Your task to perform on an android device: Clear the cart on target.com. Add "macbook pro 15 inch" to the cart on target.com Image 0: 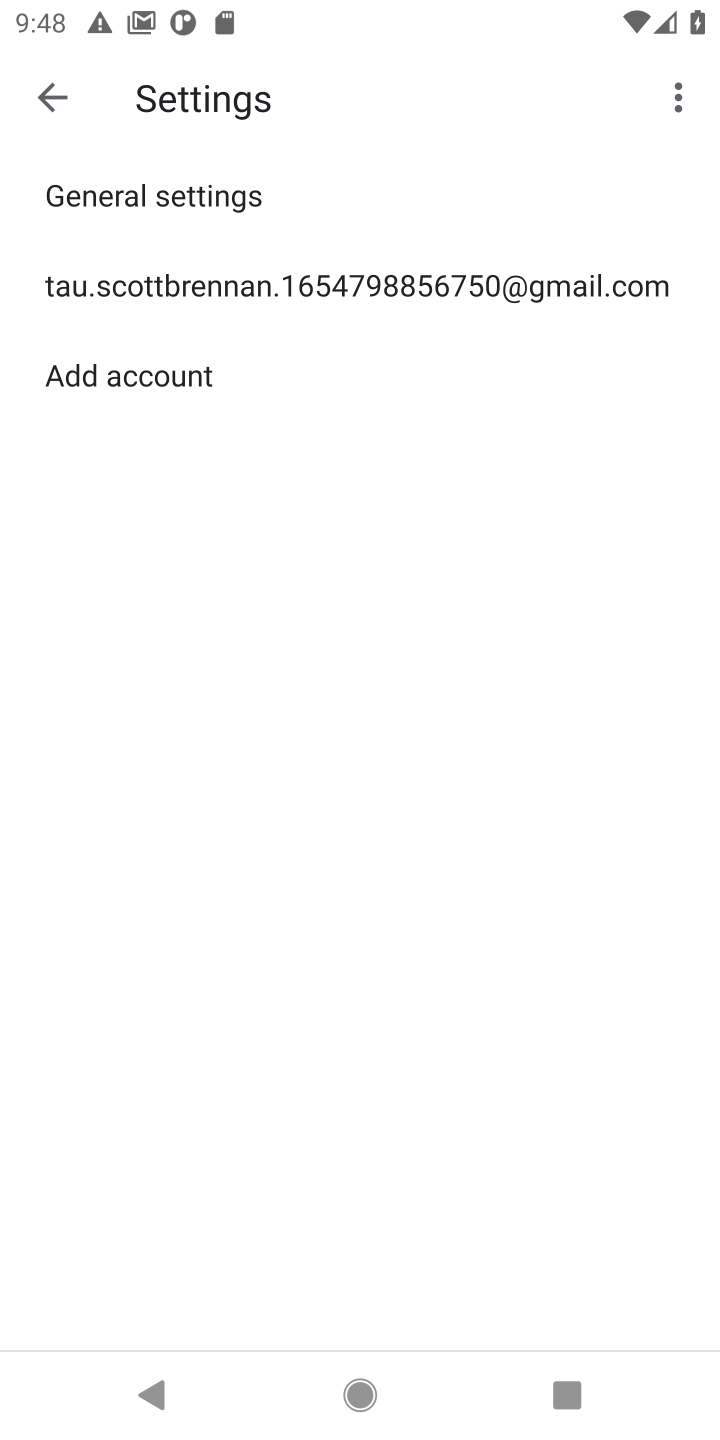
Step 0: press home button
Your task to perform on an android device: Clear the cart on target.com. Add "macbook pro 15 inch" to the cart on target.com Image 1: 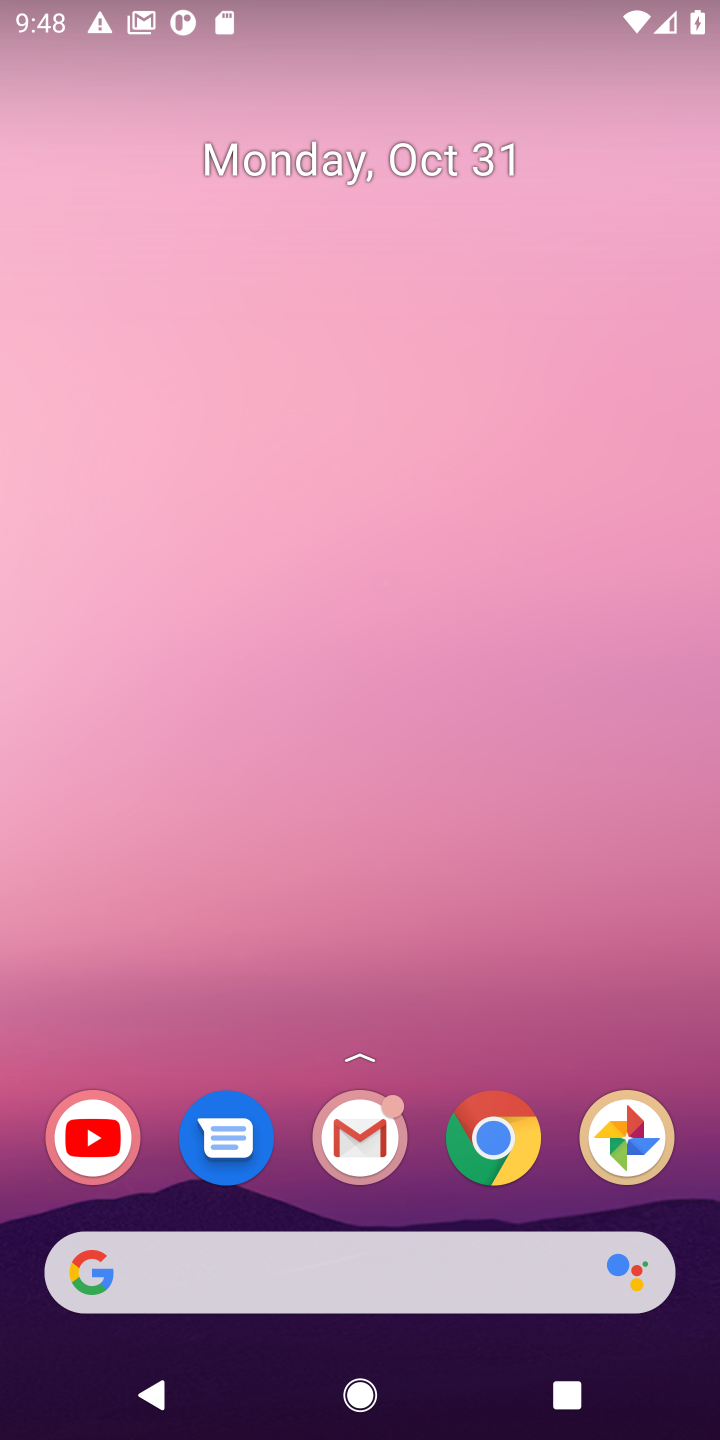
Step 1: drag from (442, 1336) to (469, 283)
Your task to perform on an android device: Clear the cart on target.com. Add "macbook pro 15 inch" to the cart on target.com Image 2: 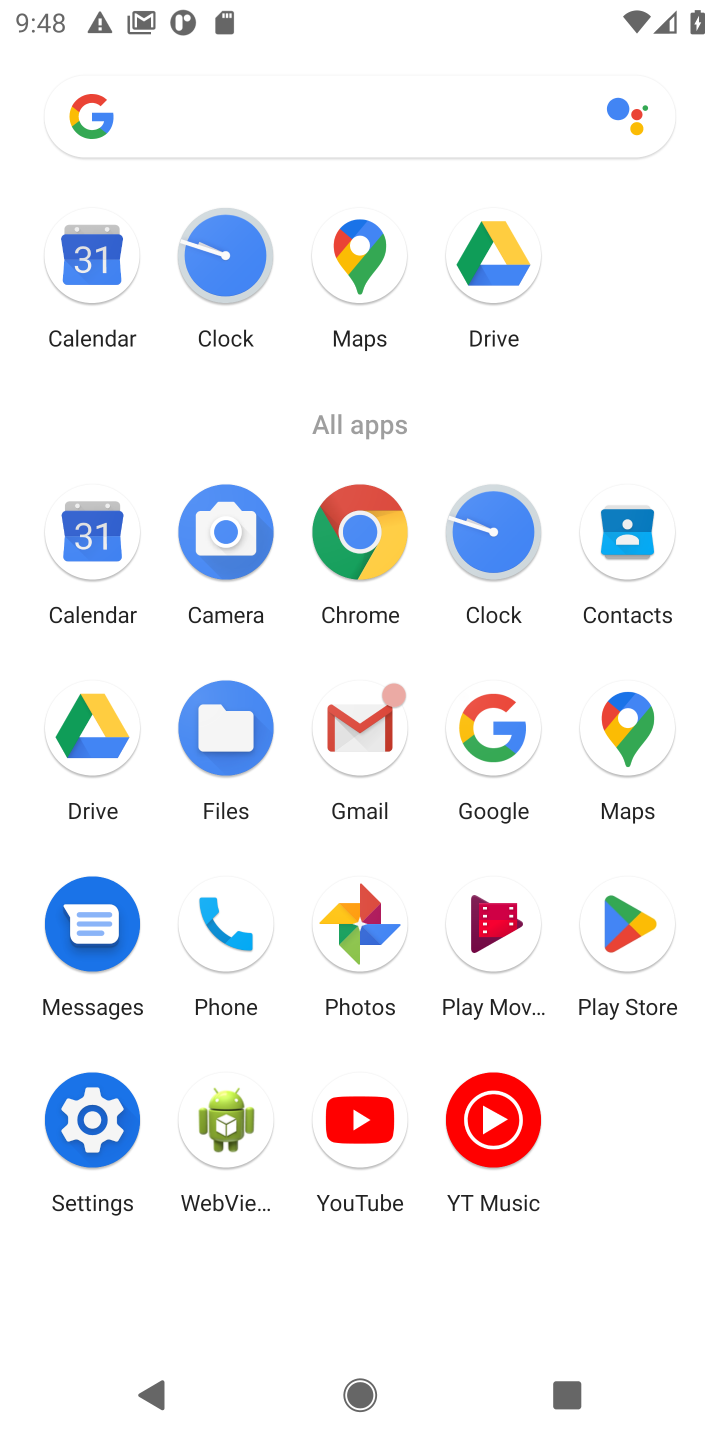
Step 2: click (363, 538)
Your task to perform on an android device: Clear the cart on target.com. Add "macbook pro 15 inch" to the cart on target.com Image 3: 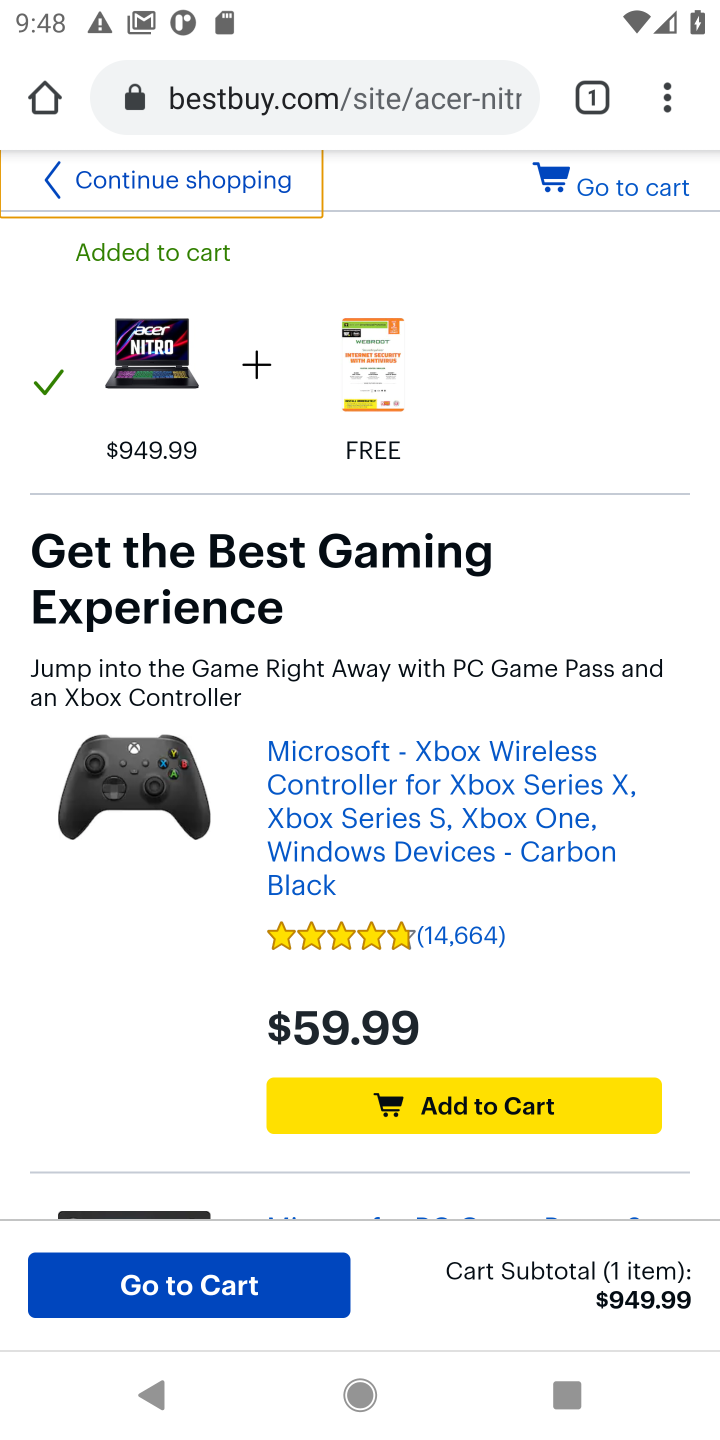
Step 3: click (379, 117)
Your task to perform on an android device: Clear the cart on target.com. Add "macbook pro 15 inch" to the cart on target.com Image 4: 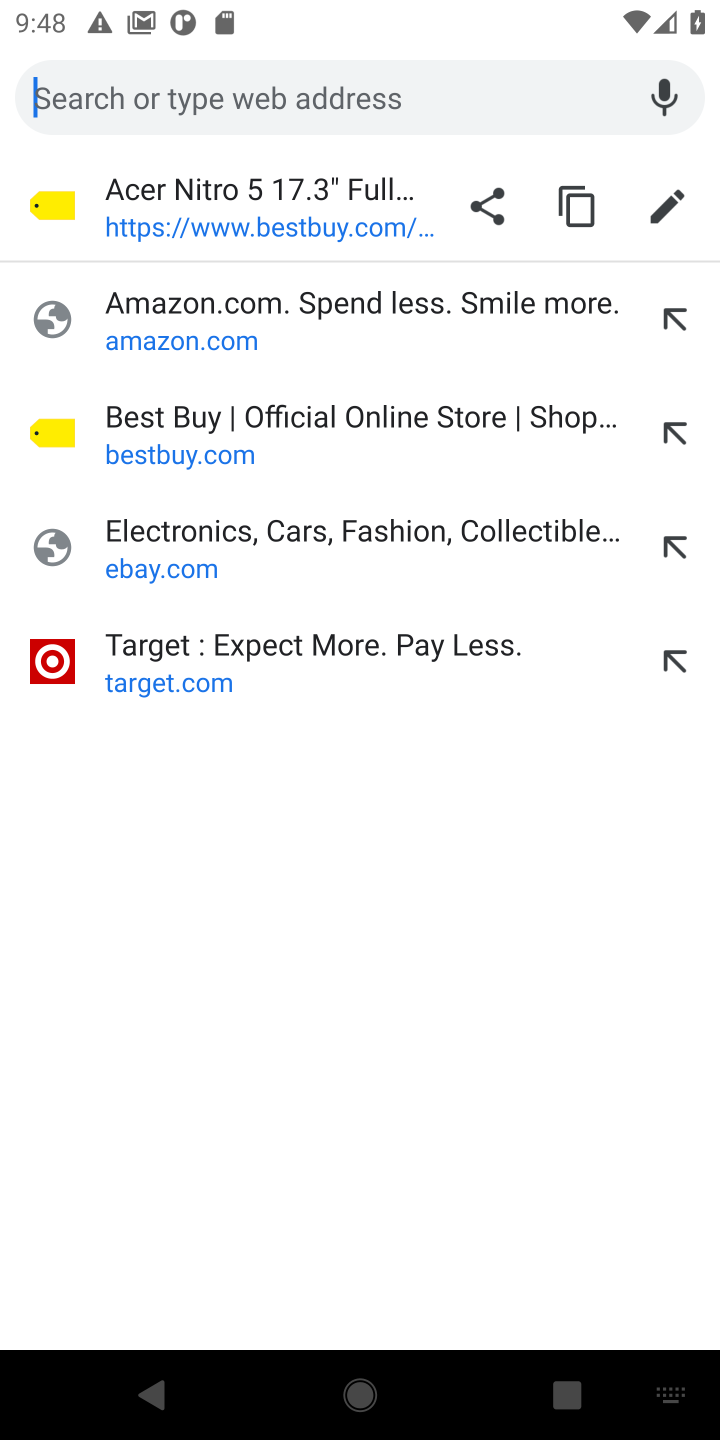
Step 4: type " target.com"
Your task to perform on an android device: Clear the cart on target.com. Add "macbook pro 15 inch" to the cart on target.com Image 5: 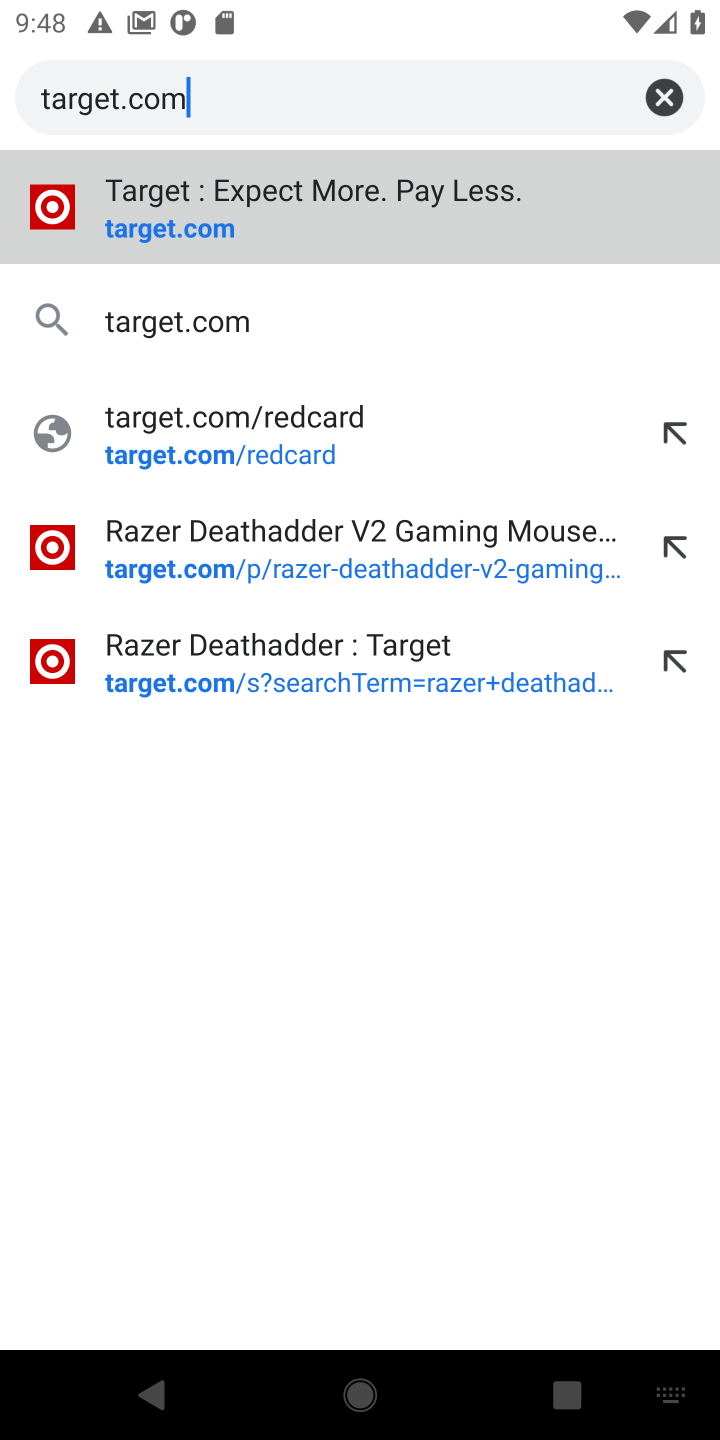
Step 5: click (150, 234)
Your task to perform on an android device: Clear the cart on target.com. Add "macbook pro 15 inch" to the cart on target.com Image 6: 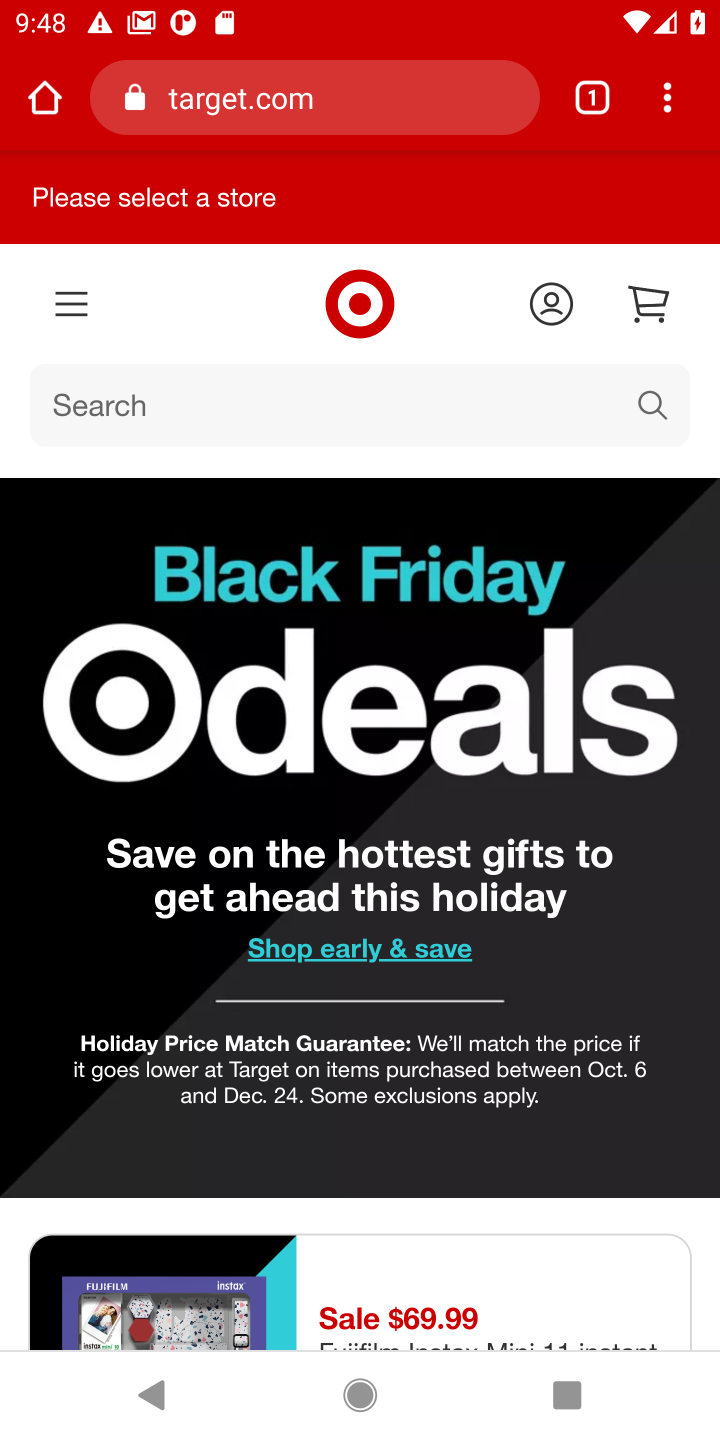
Step 6: click (340, 104)
Your task to perform on an android device: Clear the cart on target.com. Add "macbook pro 15 inch" to the cart on target.com Image 7: 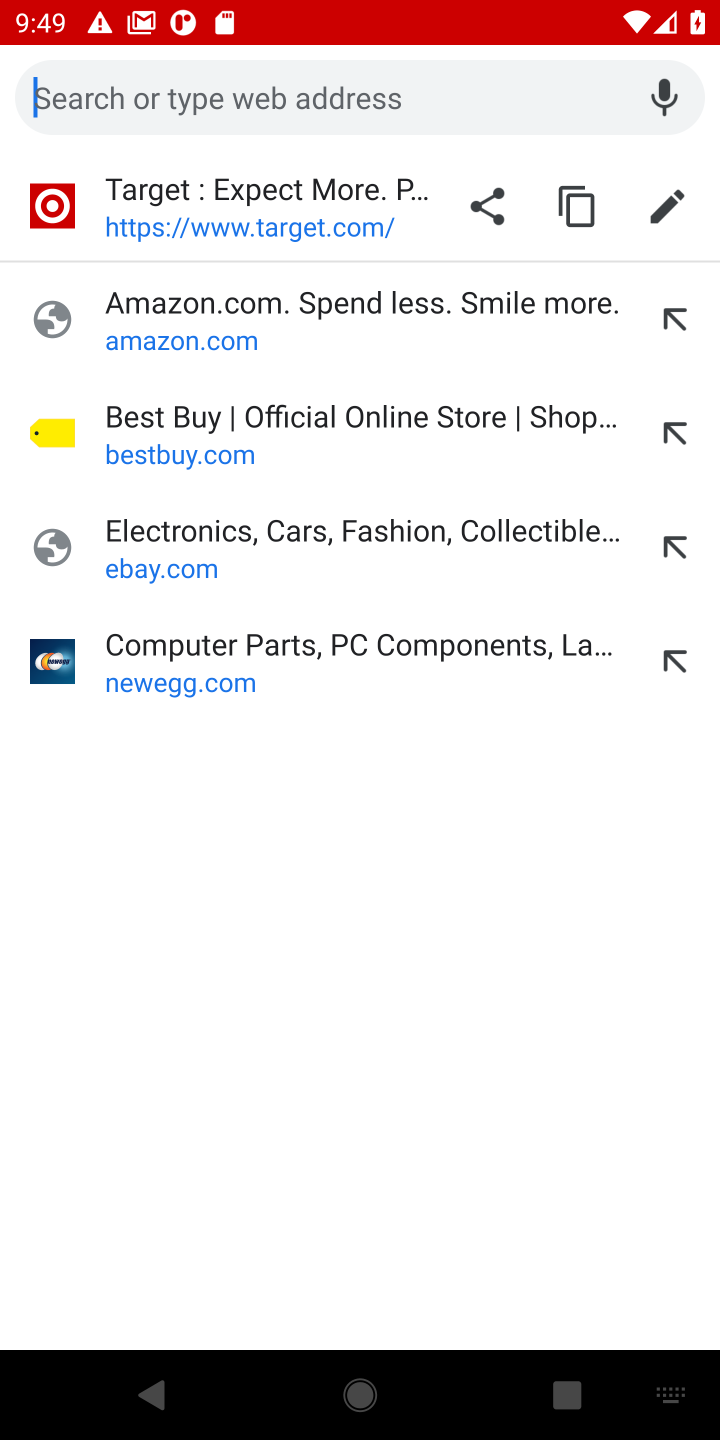
Step 7: type " target.com"
Your task to perform on an android device: Clear the cart on target.com. Add "macbook pro 15 inch" to the cart on target.com Image 8: 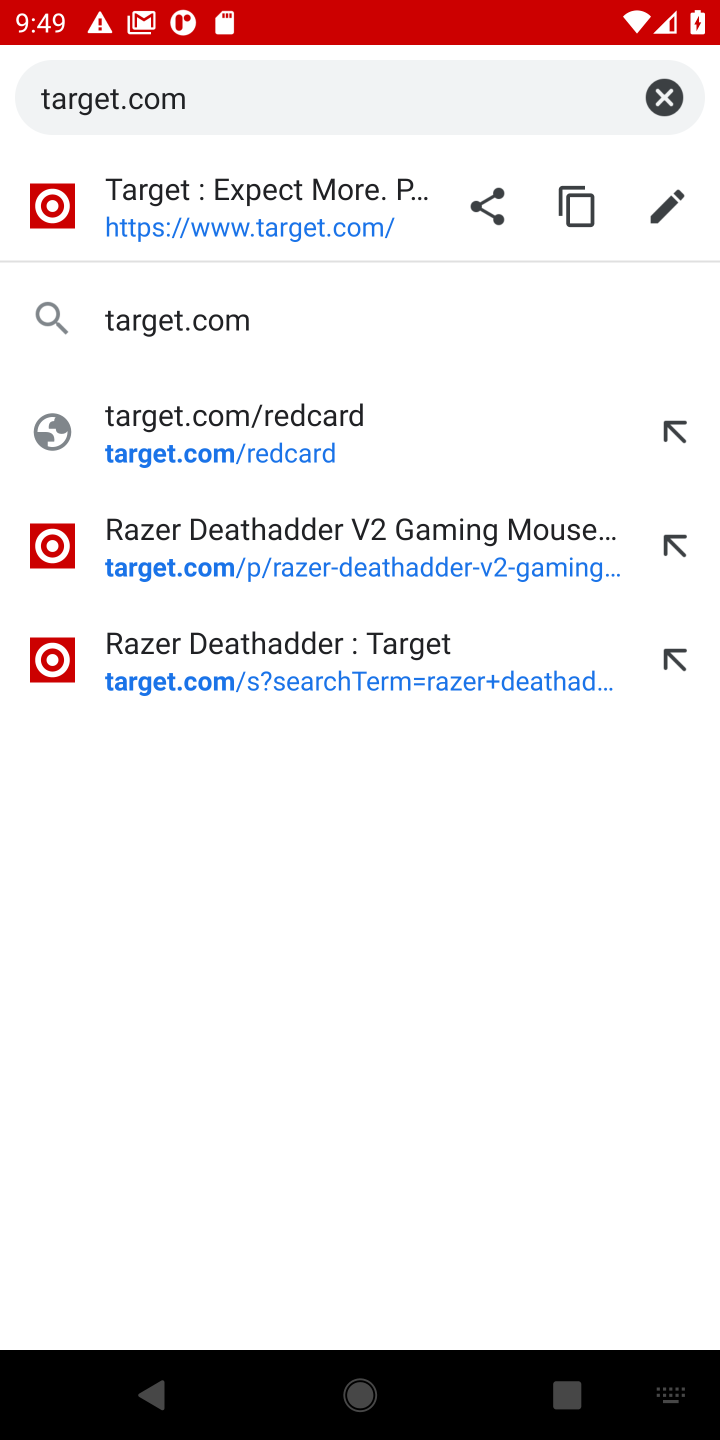
Step 8: click (661, 93)
Your task to perform on an android device: Clear the cart on target.com. Add "macbook pro 15 inch" to the cart on target.com Image 9: 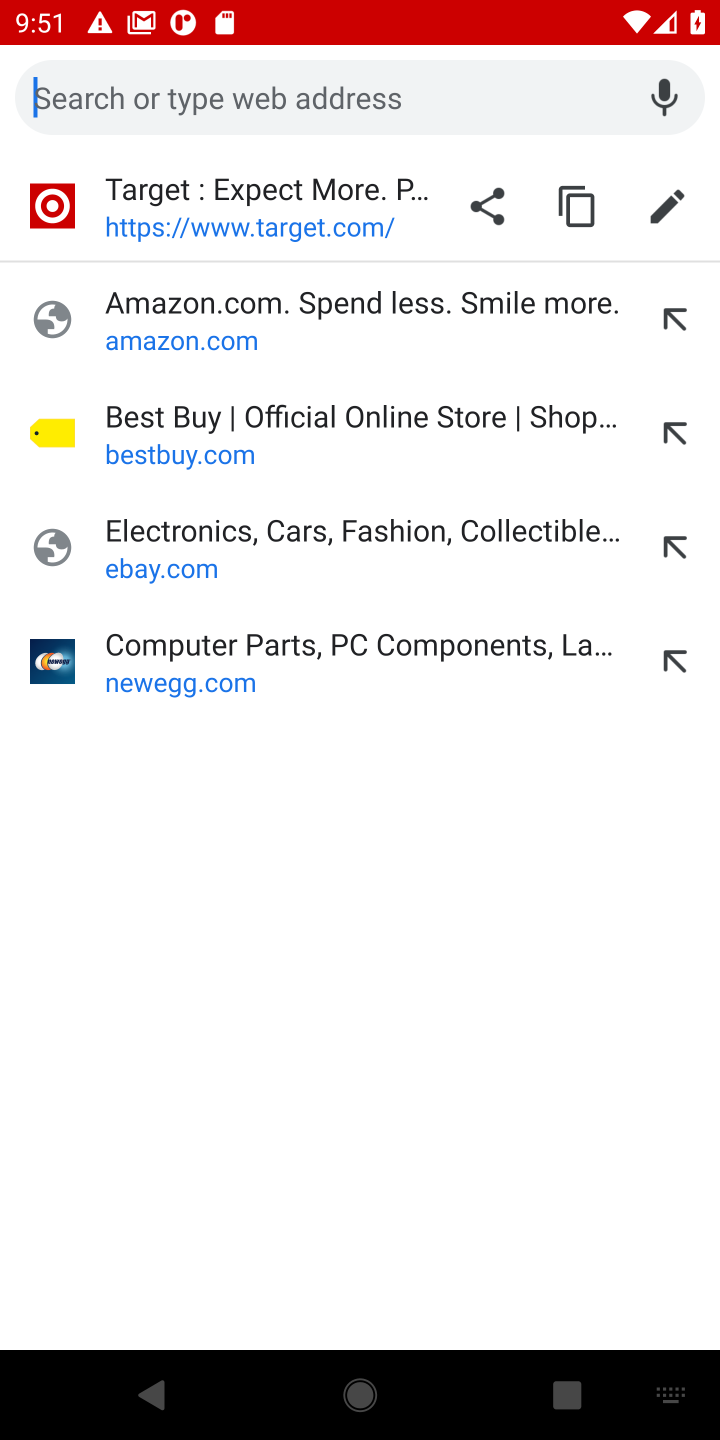
Step 9: type " target.com"
Your task to perform on an android device: Clear the cart on target.com. Add "macbook pro 15 inch" to the cart on target.com Image 10: 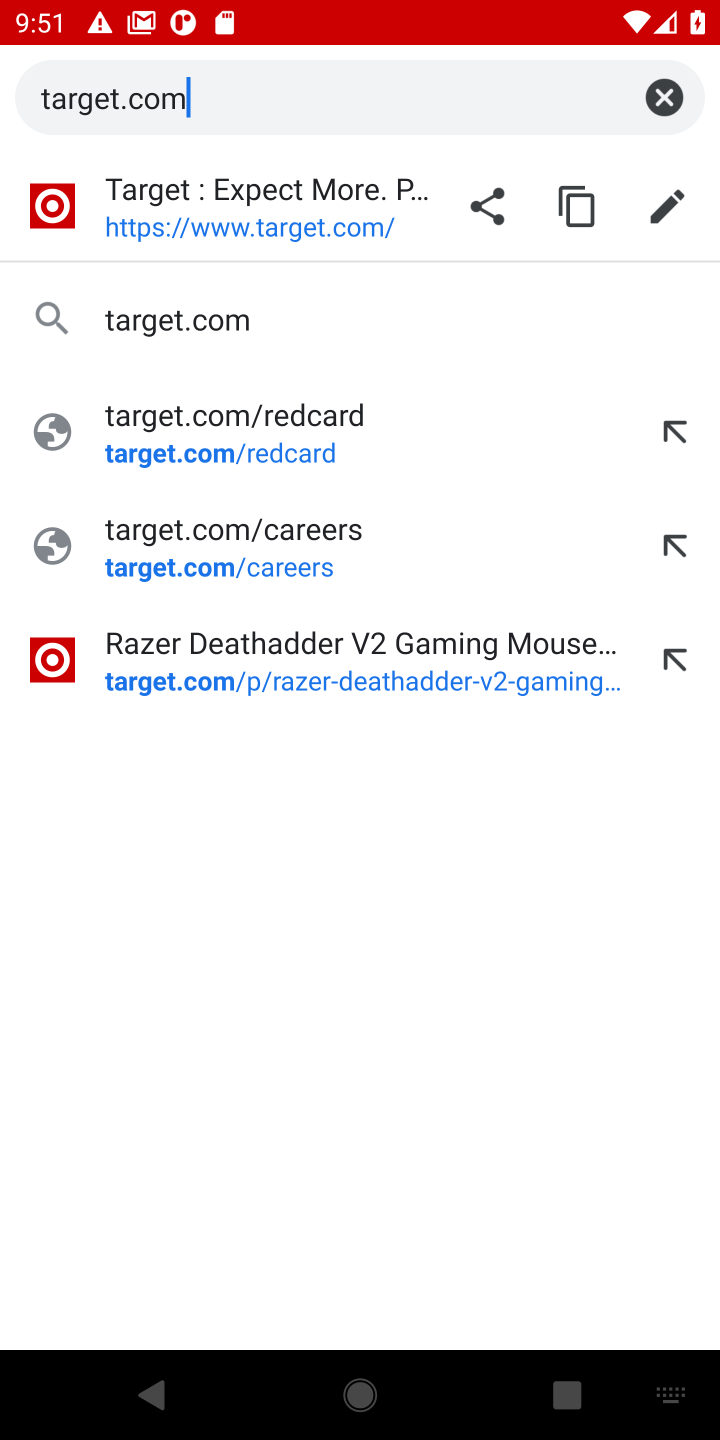
Step 10: click (678, 99)
Your task to perform on an android device: Clear the cart on target.com. Add "macbook pro 15 inch" to the cart on target.com Image 11: 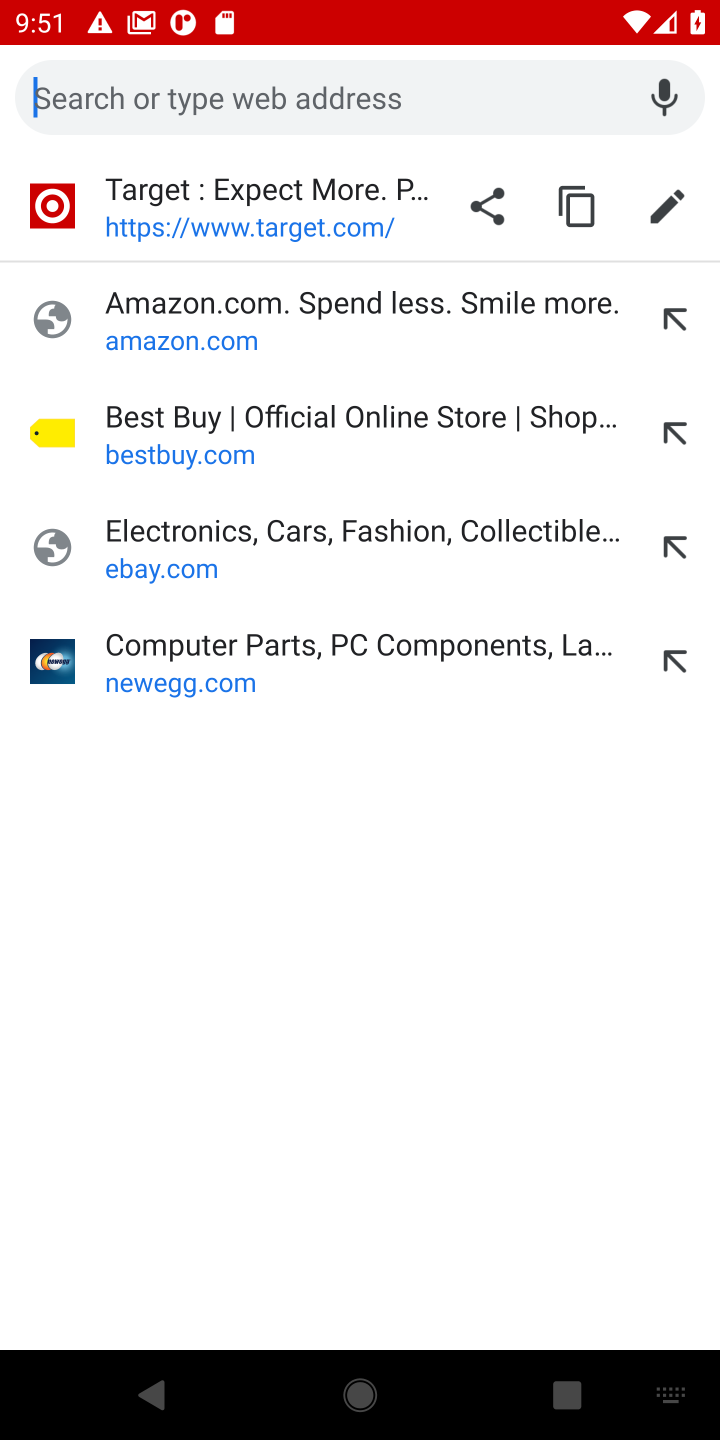
Step 11: task complete